Your task to perform on an android device: toggle show notifications on the lock screen Image 0: 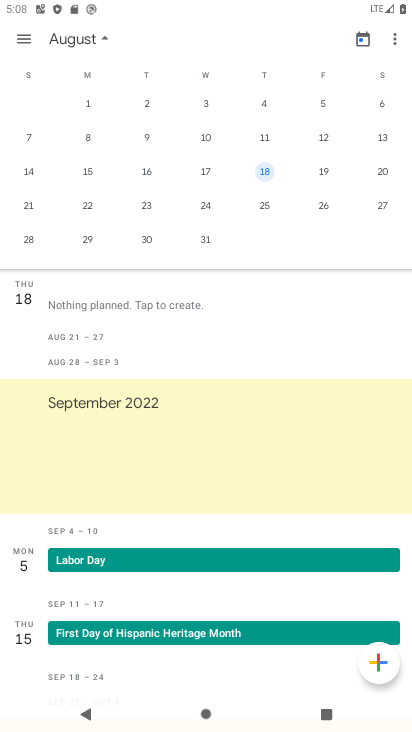
Step 0: drag from (181, 10) to (209, 675)
Your task to perform on an android device: toggle show notifications on the lock screen Image 1: 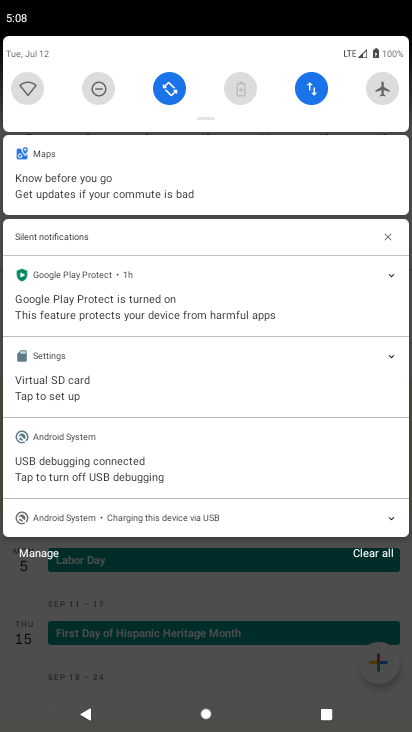
Step 1: drag from (203, 65) to (263, 700)
Your task to perform on an android device: toggle show notifications on the lock screen Image 2: 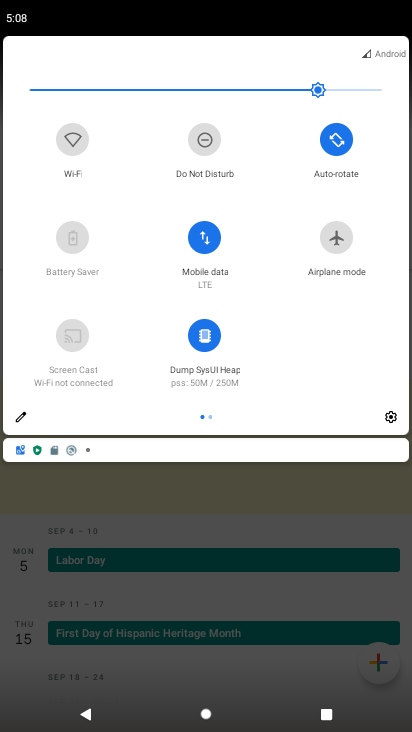
Step 2: click (399, 419)
Your task to perform on an android device: toggle show notifications on the lock screen Image 3: 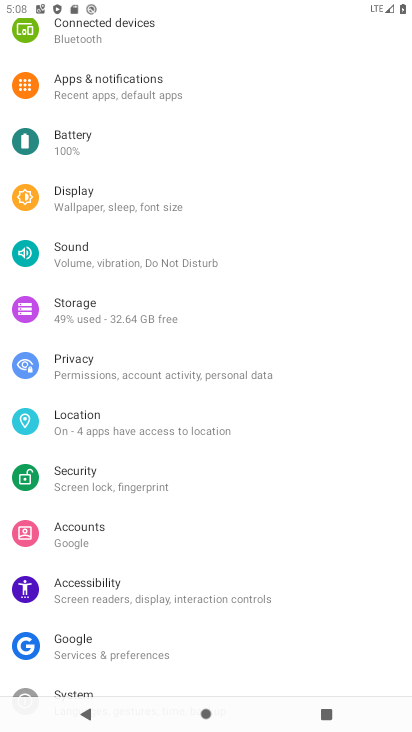
Step 3: click (138, 74)
Your task to perform on an android device: toggle show notifications on the lock screen Image 4: 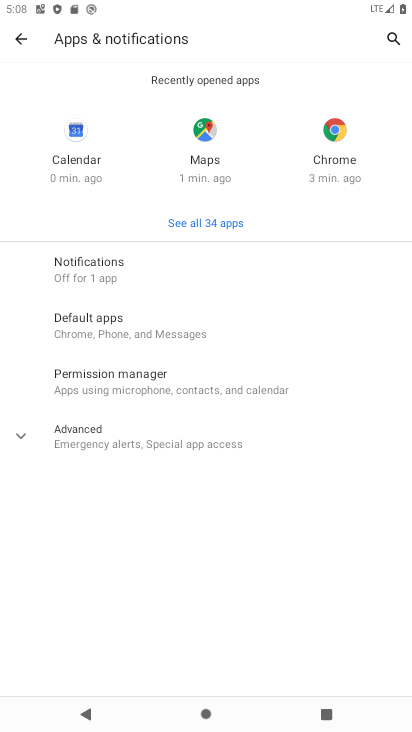
Step 4: click (129, 269)
Your task to perform on an android device: toggle show notifications on the lock screen Image 5: 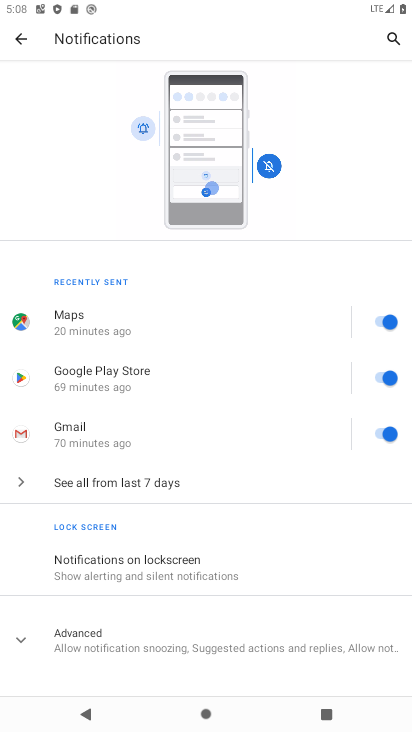
Step 5: click (149, 565)
Your task to perform on an android device: toggle show notifications on the lock screen Image 6: 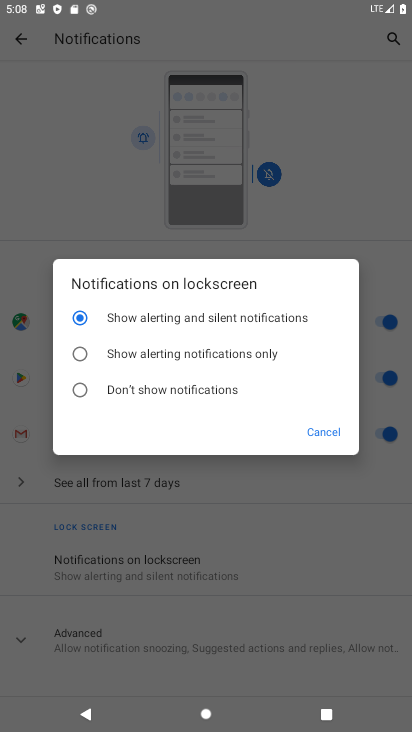
Step 6: click (147, 355)
Your task to perform on an android device: toggle show notifications on the lock screen Image 7: 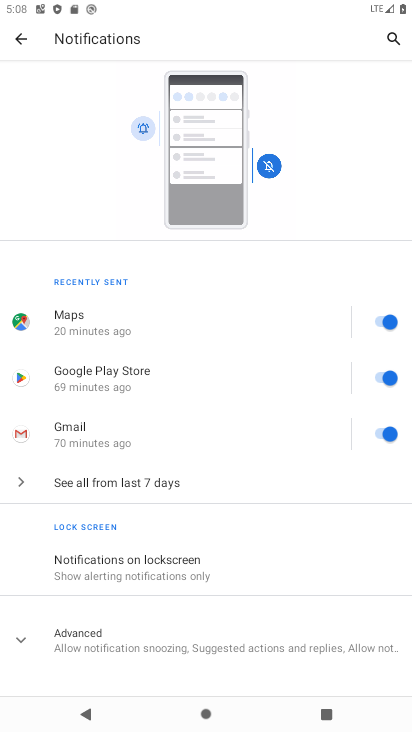
Step 7: task complete